Your task to perform on an android device: Open Google Image 0: 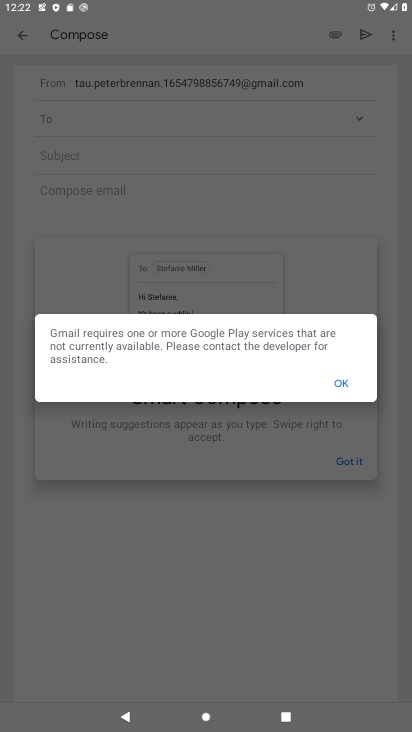
Step 0: press home button
Your task to perform on an android device: Open Google Image 1: 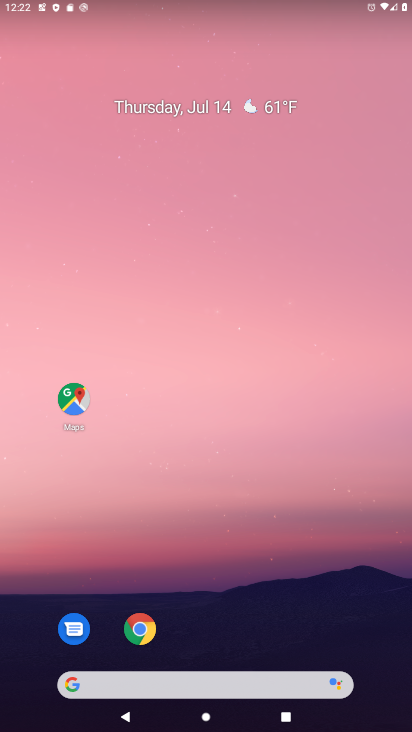
Step 1: click (75, 684)
Your task to perform on an android device: Open Google Image 2: 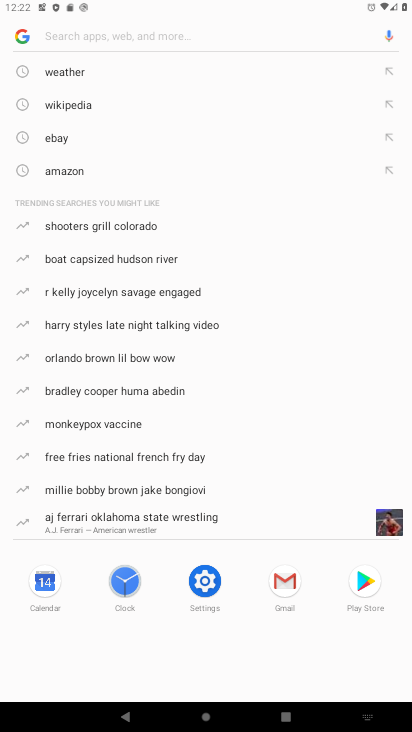
Step 2: click (27, 37)
Your task to perform on an android device: Open Google Image 3: 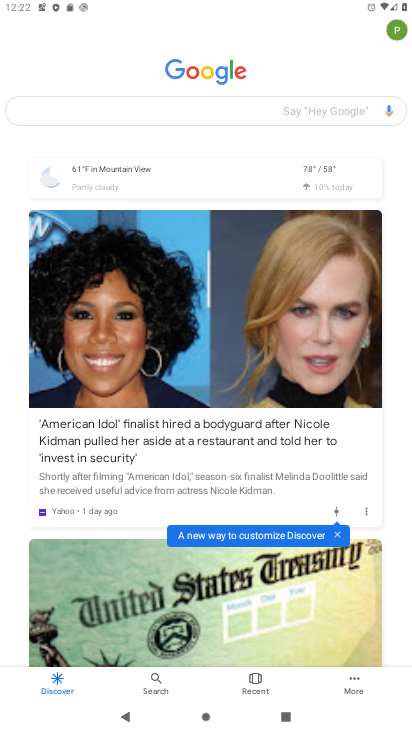
Step 3: task complete